Your task to perform on an android device: Search for flights from NYC to Chicago Image 0: 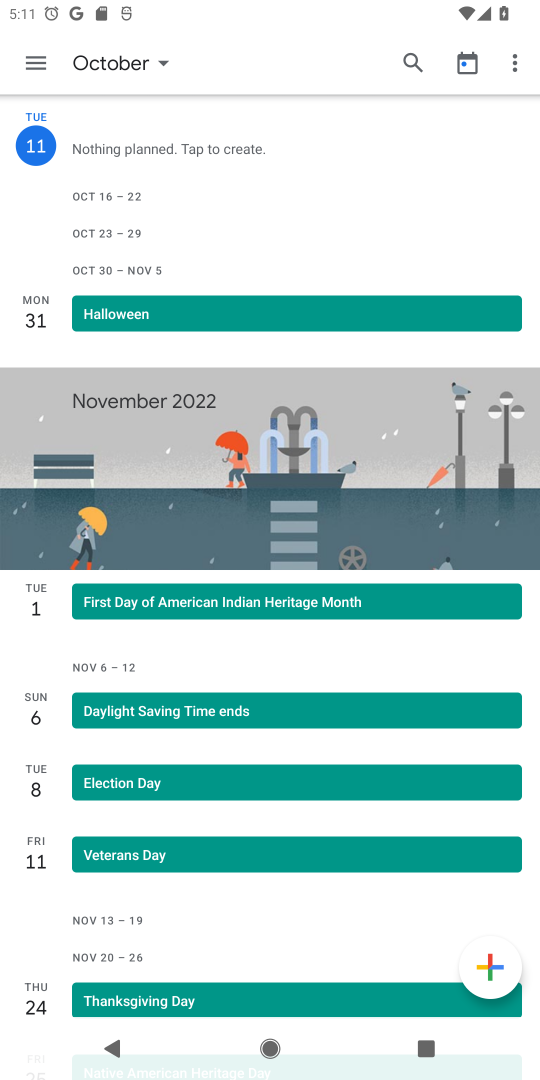
Step 0: press home button
Your task to perform on an android device: Search for flights from NYC to Chicago Image 1: 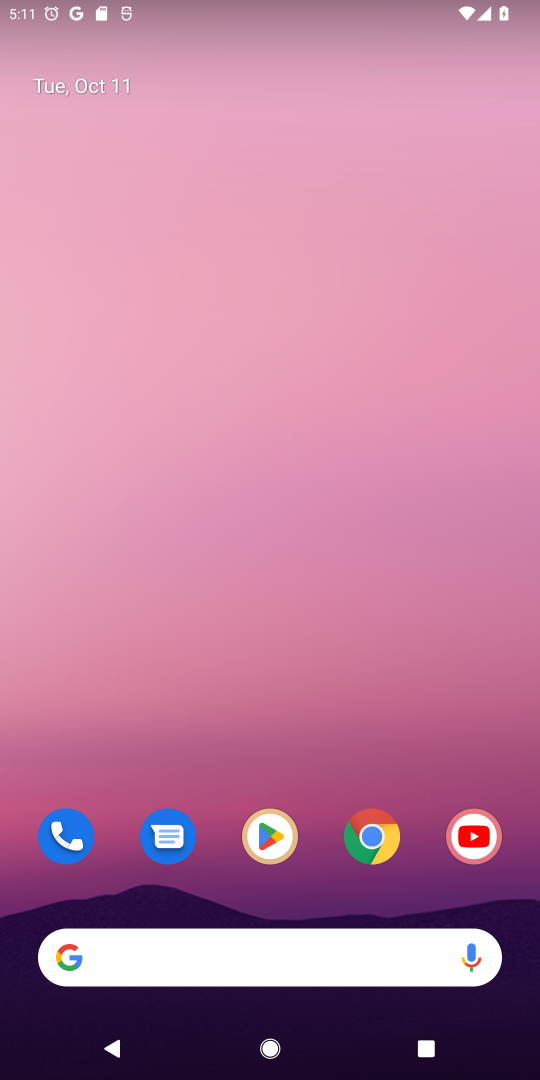
Step 1: click (125, 949)
Your task to perform on an android device: Search for flights from NYC to Chicago Image 2: 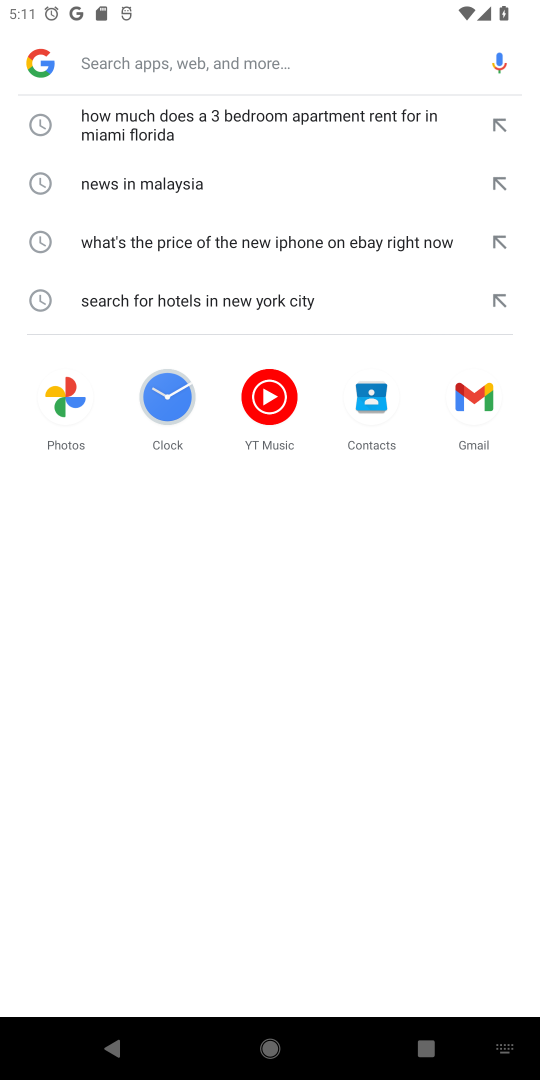
Step 2: type "Search for flights from NYC to Chicago"
Your task to perform on an android device: Search for flights from NYC to Chicago Image 3: 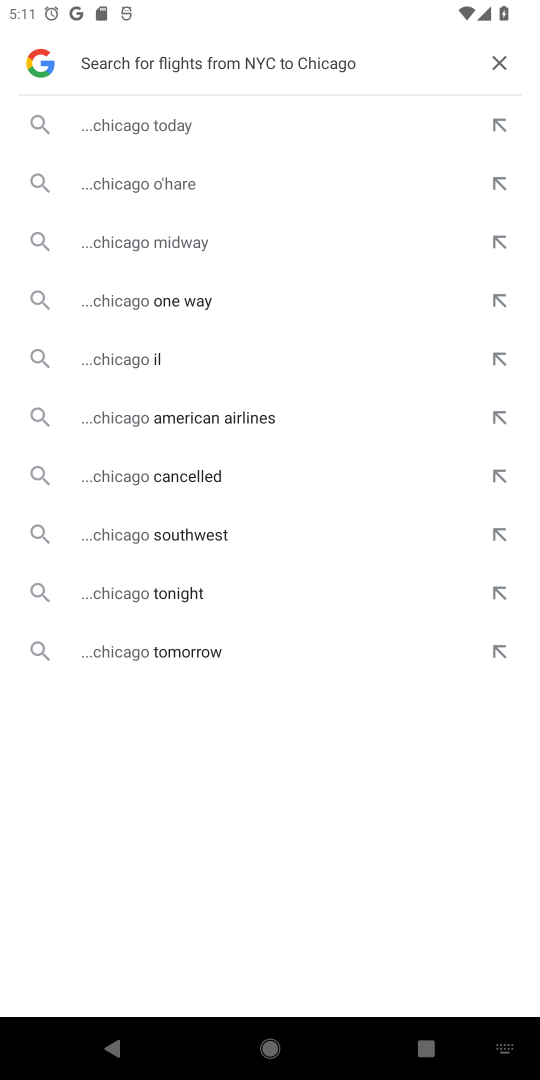
Step 3: click (201, 136)
Your task to perform on an android device: Search for flights from NYC to Chicago Image 4: 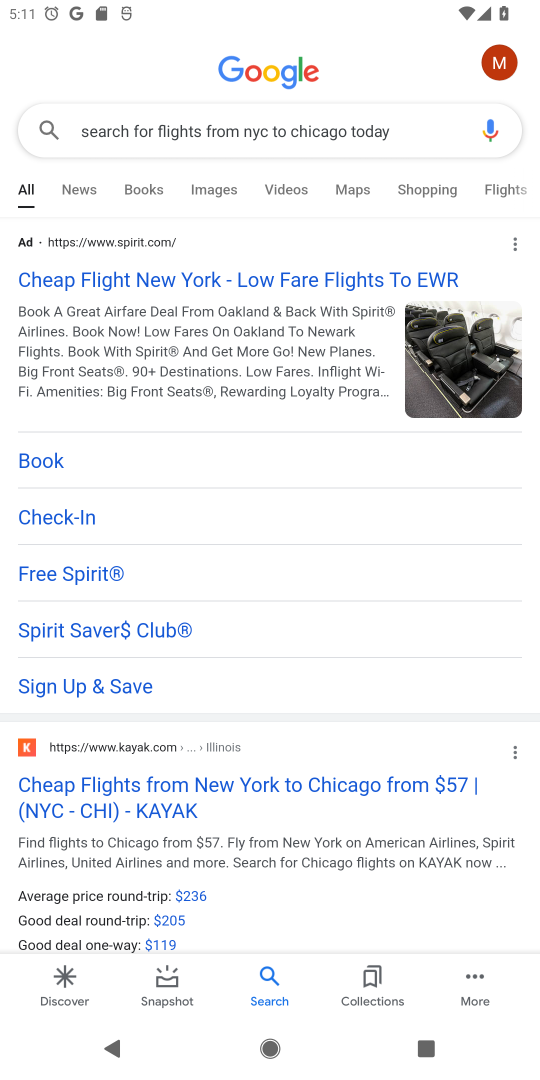
Step 4: task complete